Your task to perform on an android device: turn on sleep mode Image 0: 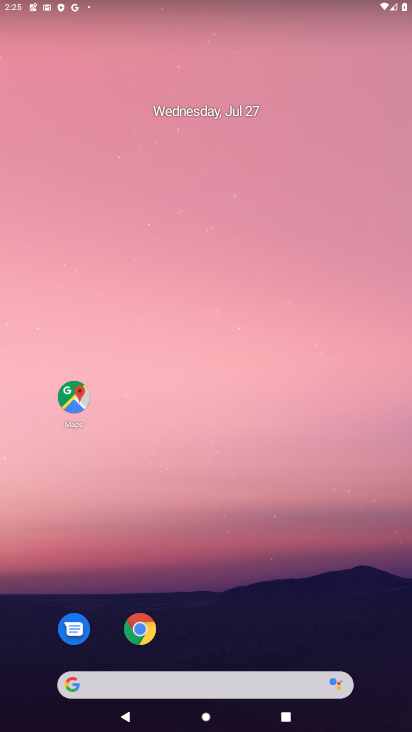
Step 0: drag from (213, 665) to (213, 231)
Your task to perform on an android device: turn on sleep mode Image 1: 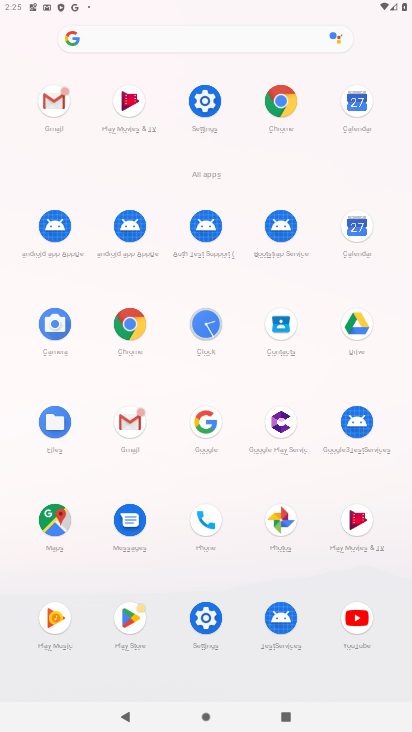
Step 1: click (224, 104)
Your task to perform on an android device: turn on sleep mode Image 2: 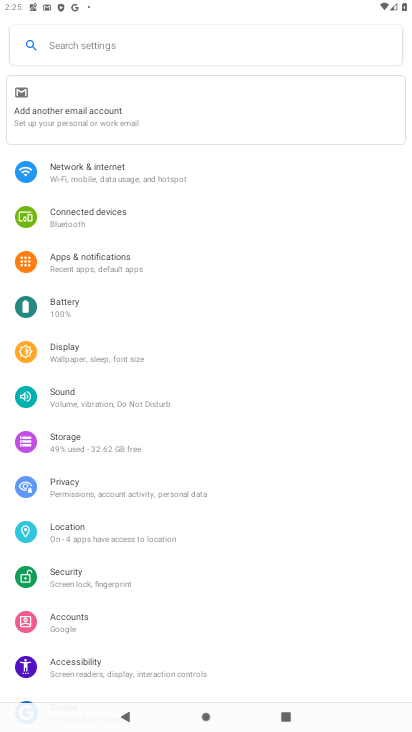
Step 2: click (197, 359)
Your task to perform on an android device: turn on sleep mode Image 3: 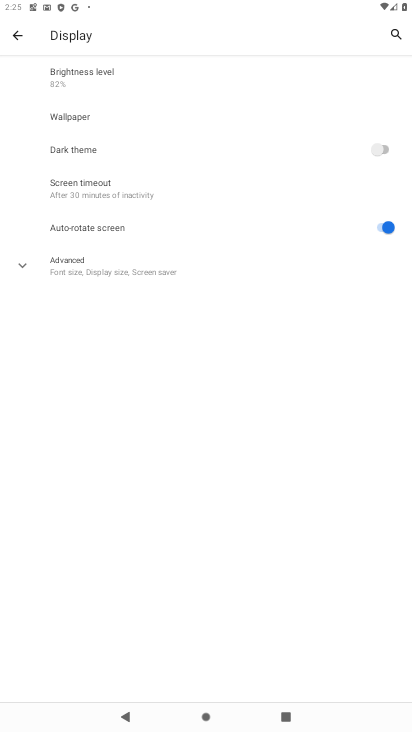
Step 3: task complete